Your task to perform on an android device: Open wifi settings Image 0: 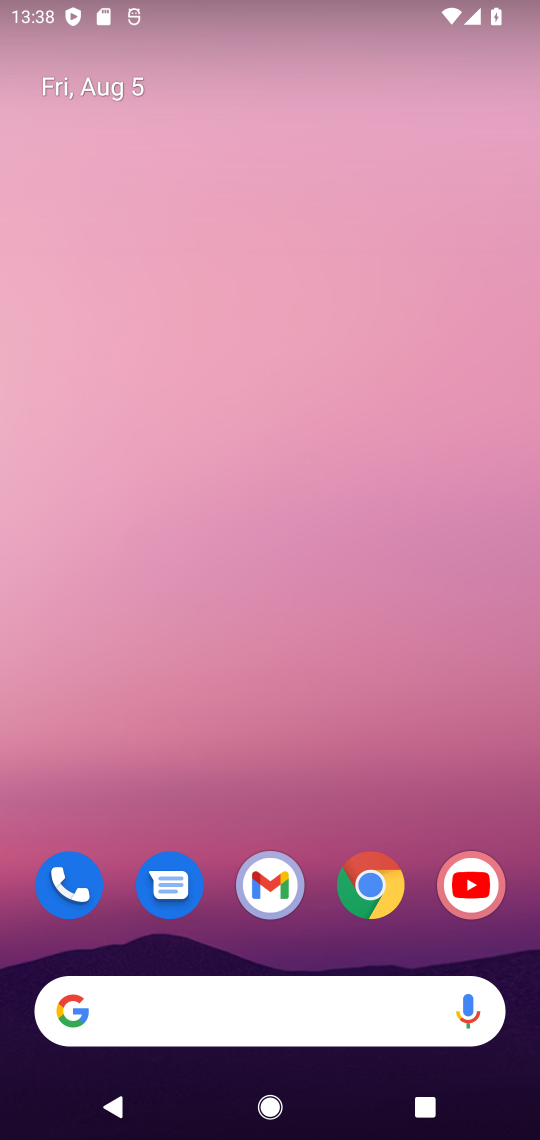
Step 0: drag from (263, 880) to (239, 301)
Your task to perform on an android device: Open wifi settings Image 1: 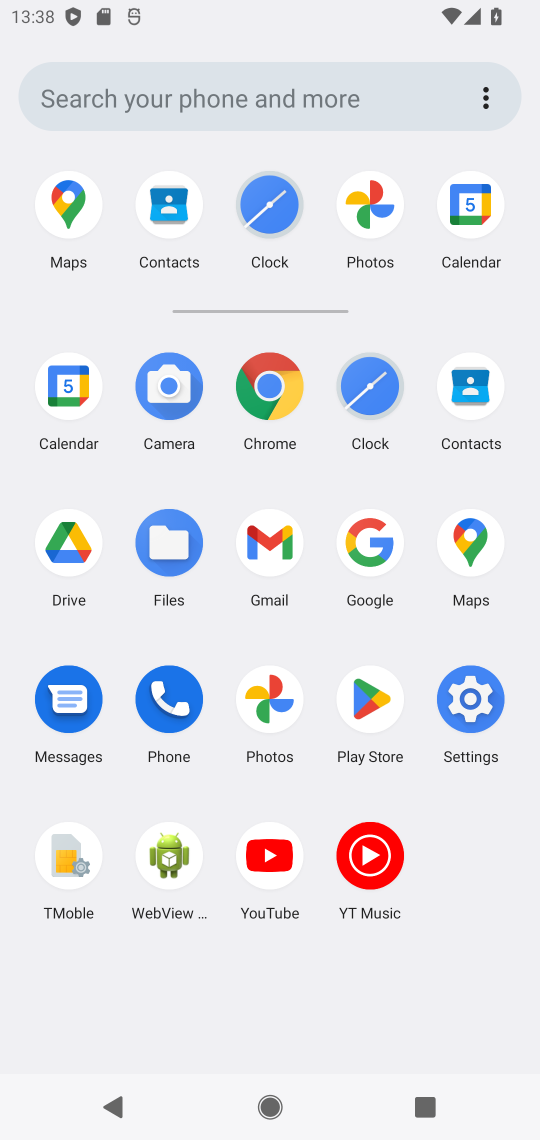
Step 1: click (461, 696)
Your task to perform on an android device: Open wifi settings Image 2: 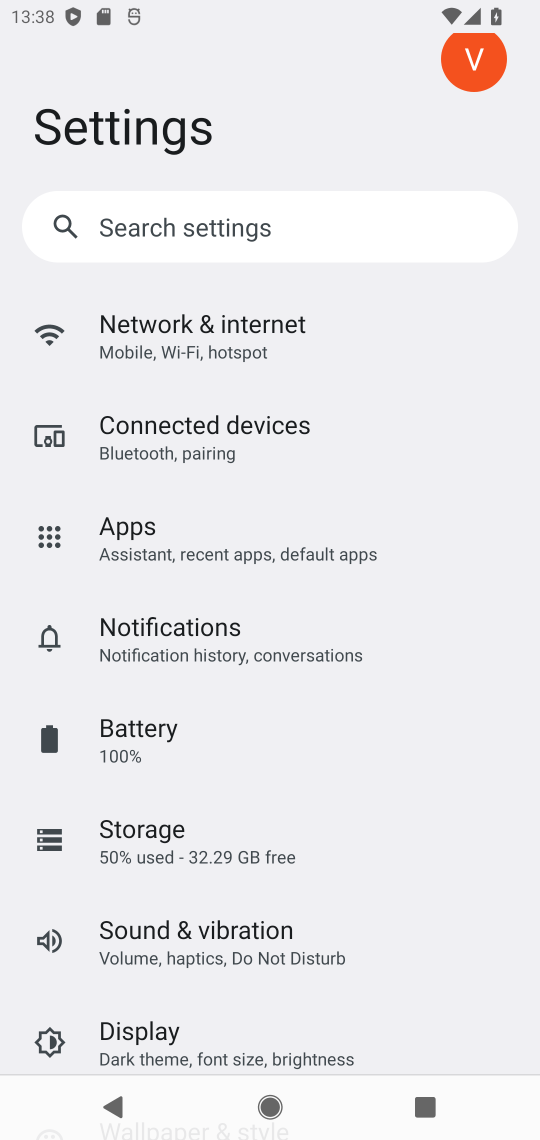
Step 2: click (193, 342)
Your task to perform on an android device: Open wifi settings Image 3: 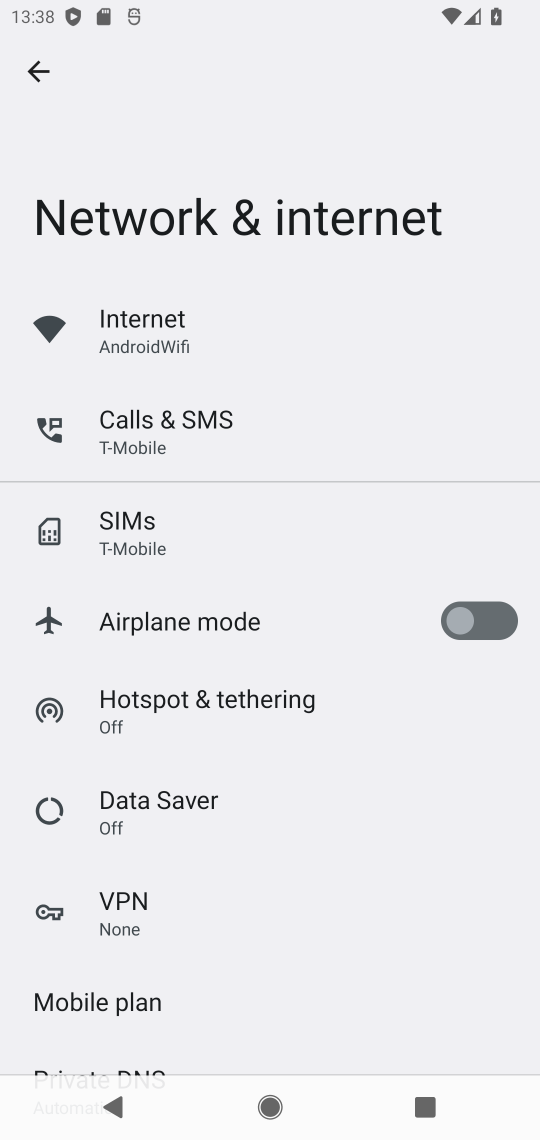
Step 3: click (162, 336)
Your task to perform on an android device: Open wifi settings Image 4: 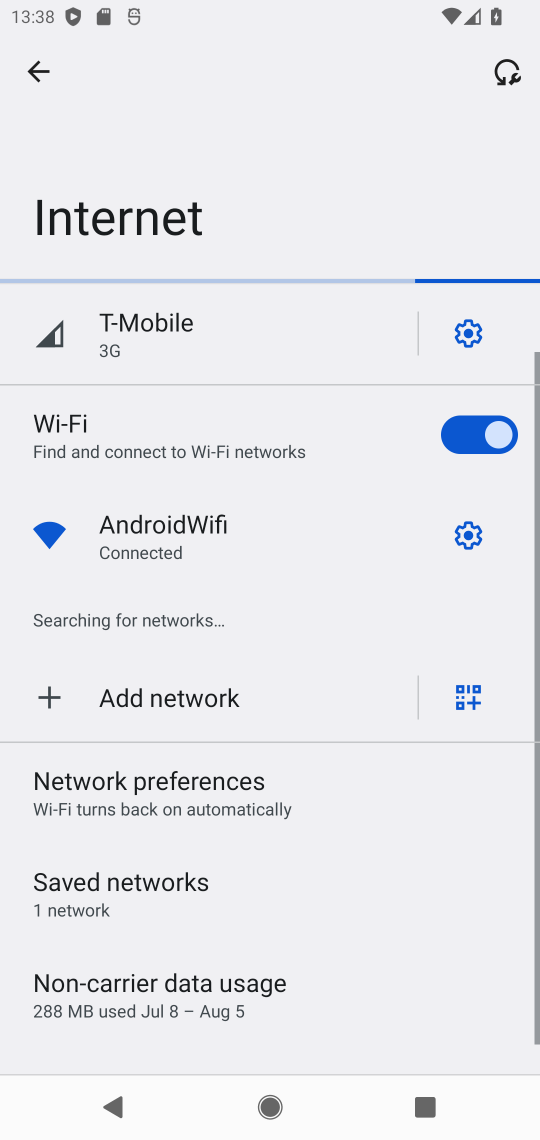
Step 4: click (261, 543)
Your task to perform on an android device: Open wifi settings Image 5: 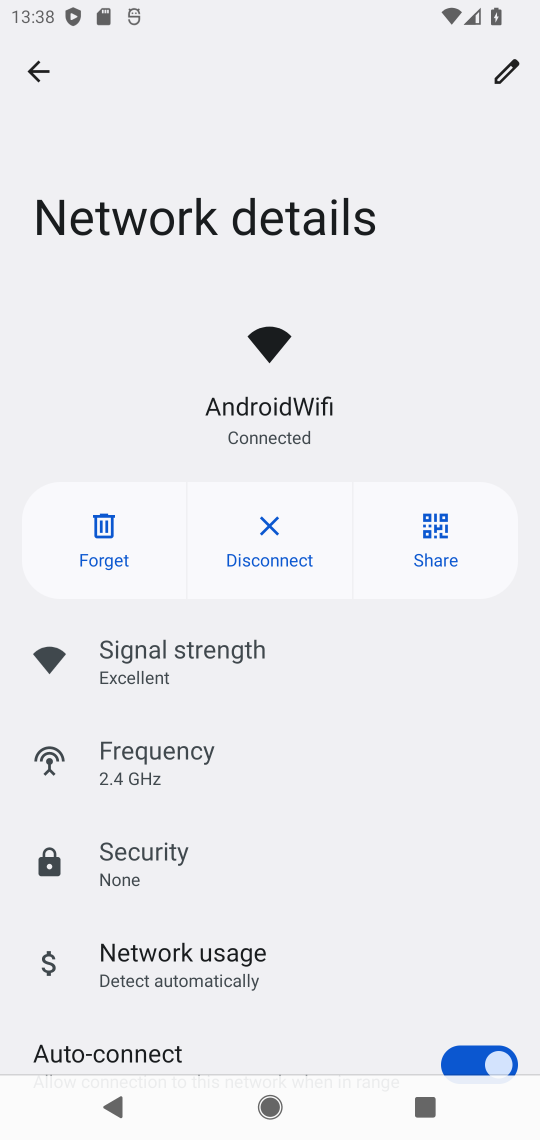
Step 5: task complete